Your task to perform on an android device: What's a good restaurant in Chicago? Image 0: 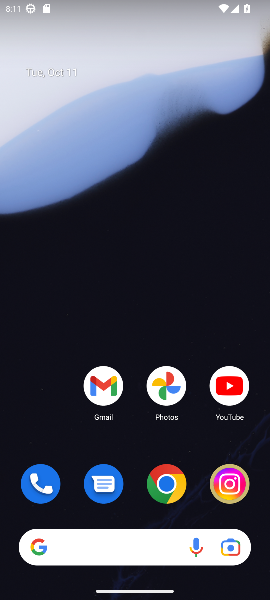
Step 0: click (166, 485)
Your task to perform on an android device: What's a good restaurant in Chicago? Image 1: 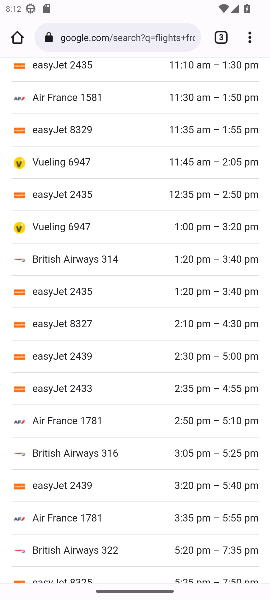
Step 1: click (129, 39)
Your task to perform on an android device: What's a good restaurant in Chicago? Image 2: 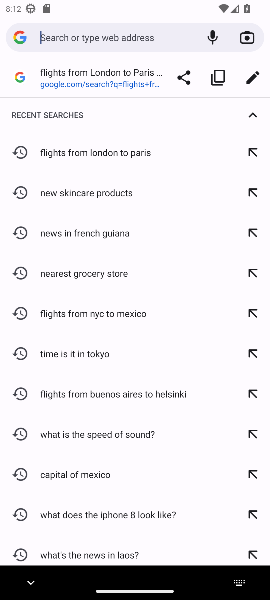
Step 2: type "good restaurant in Chicago"
Your task to perform on an android device: What's a good restaurant in Chicago? Image 3: 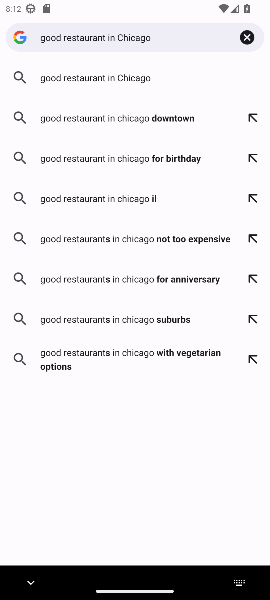
Step 3: click (124, 79)
Your task to perform on an android device: What's a good restaurant in Chicago? Image 4: 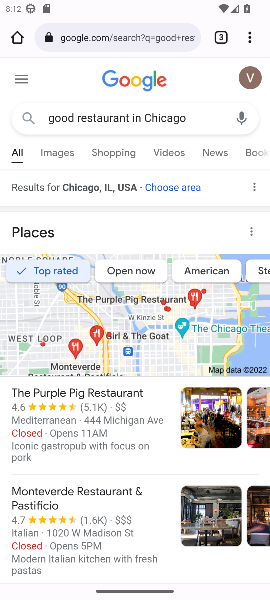
Step 4: task complete